Your task to perform on an android device: Open Reddit.com Image 0: 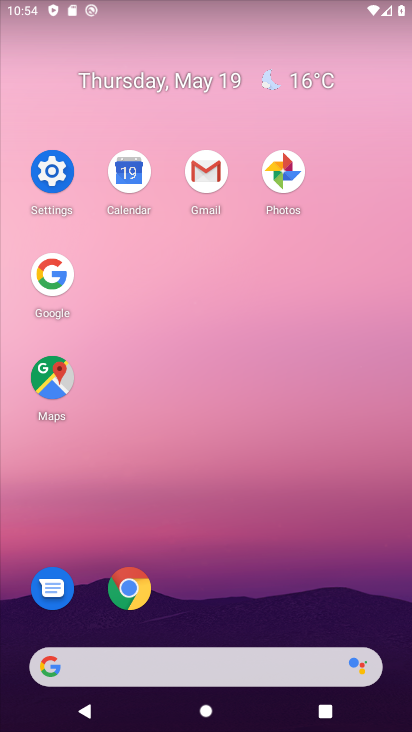
Step 0: click (127, 587)
Your task to perform on an android device: Open Reddit.com Image 1: 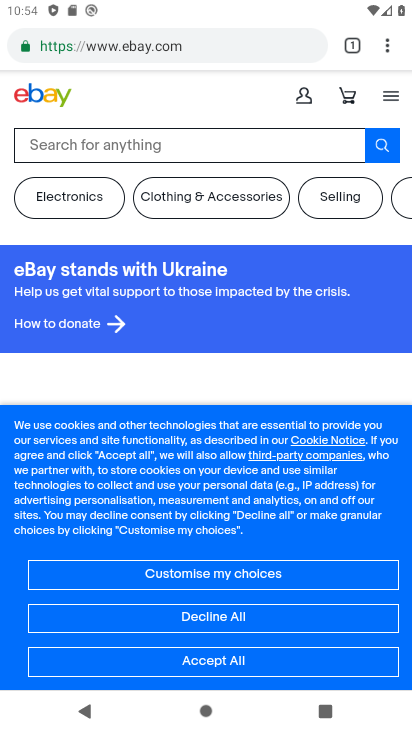
Step 1: click (349, 40)
Your task to perform on an android device: Open Reddit.com Image 2: 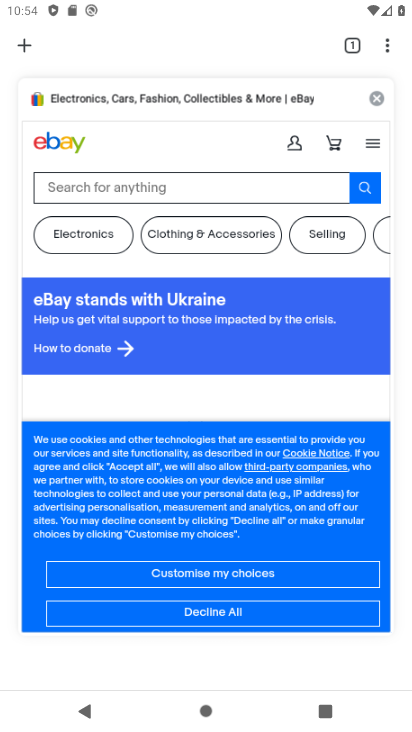
Step 2: click (22, 48)
Your task to perform on an android device: Open Reddit.com Image 3: 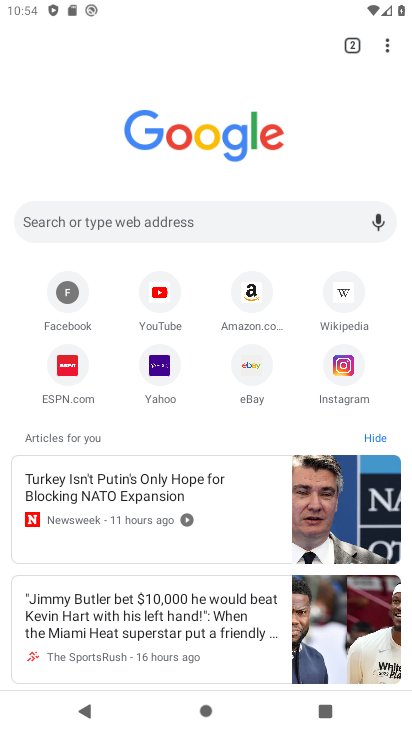
Step 3: click (134, 219)
Your task to perform on an android device: Open Reddit.com Image 4: 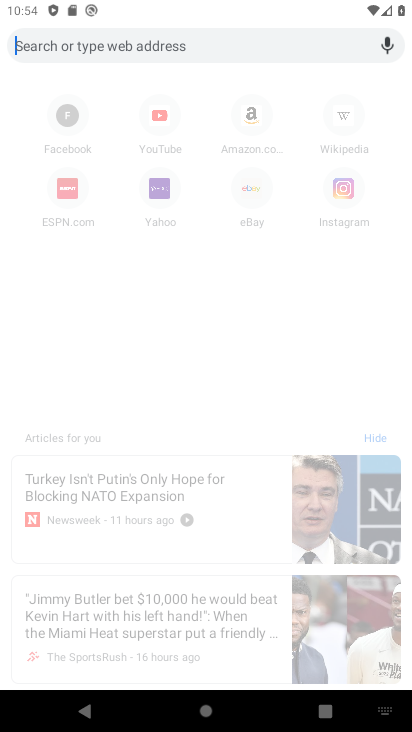
Step 4: type "reddit"
Your task to perform on an android device: Open Reddit.com Image 5: 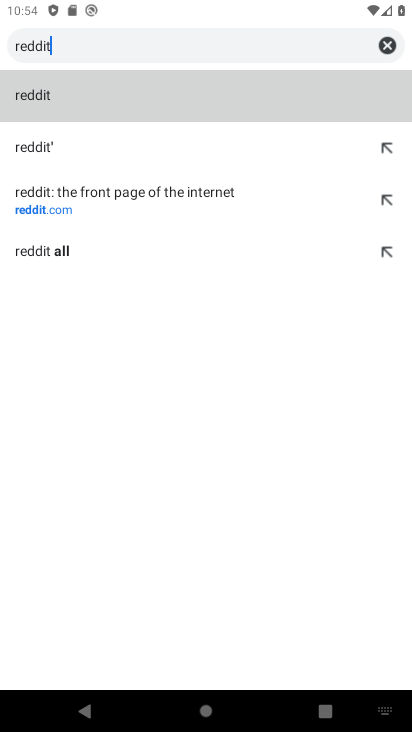
Step 5: click (72, 190)
Your task to perform on an android device: Open Reddit.com Image 6: 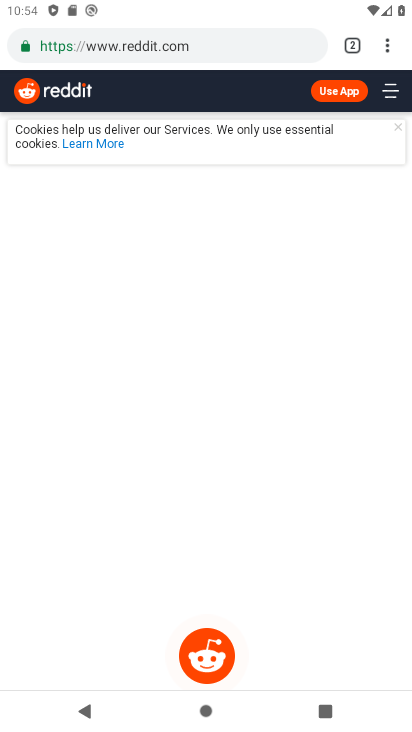
Step 6: task complete